Your task to perform on an android device: turn off translation in the chrome app Image 0: 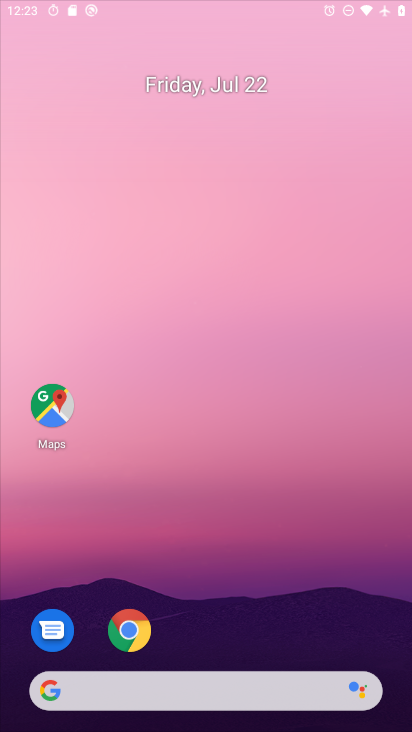
Step 0: press home button
Your task to perform on an android device: turn off translation in the chrome app Image 1: 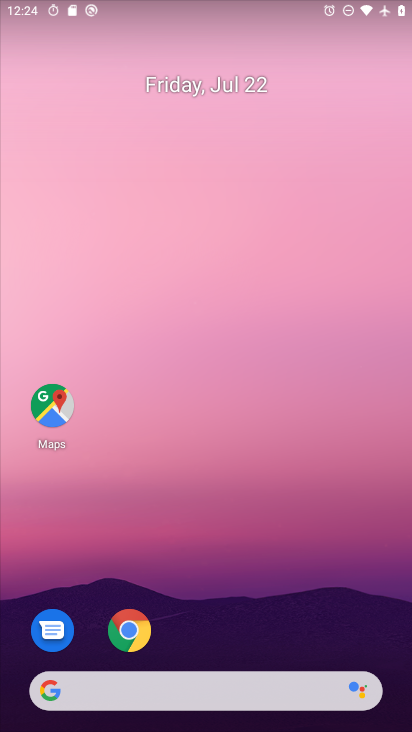
Step 1: drag from (234, 640) to (234, 213)
Your task to perform on an android device: turn off translation in the chrome app Image 2: 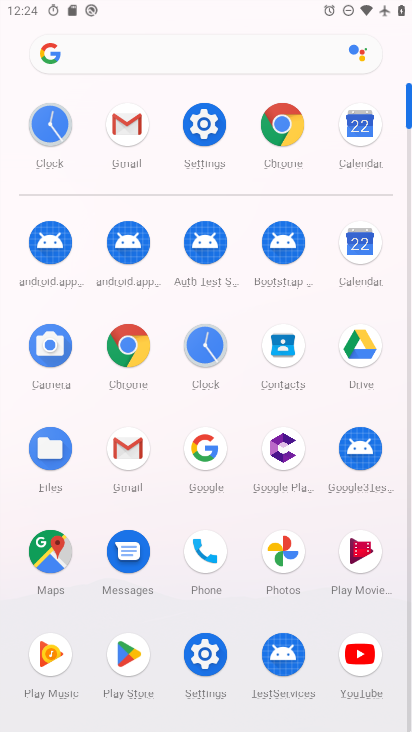
Step 2: click (277, 130)
Your task to perform on an android device: turn off translation in the chrome app Image 3: 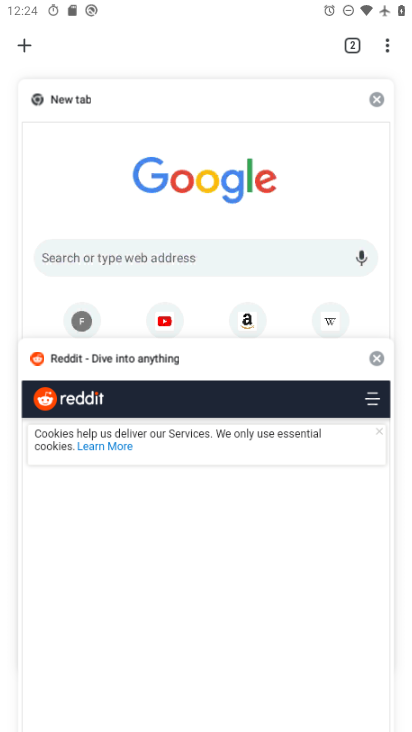
Step 3: drag from (386, 49) to (218, 173)
Your task to perform on an android device: turn off translation in the chrome app Image 4: 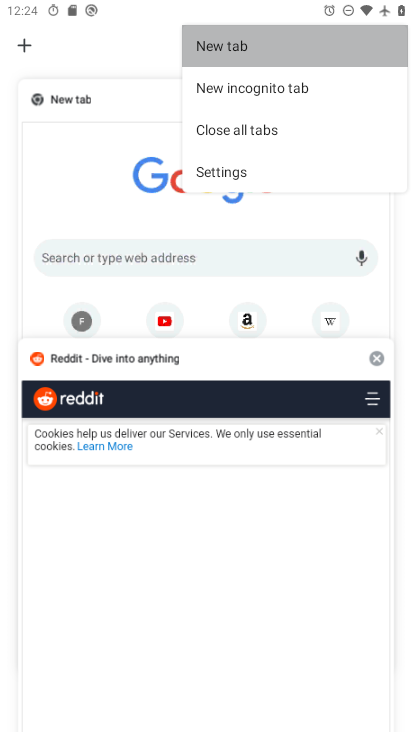
Step 4: drag from (382, 57) to (218, 173)
Your task to perform on an android device: turn off translation in the chrome app Image 5: 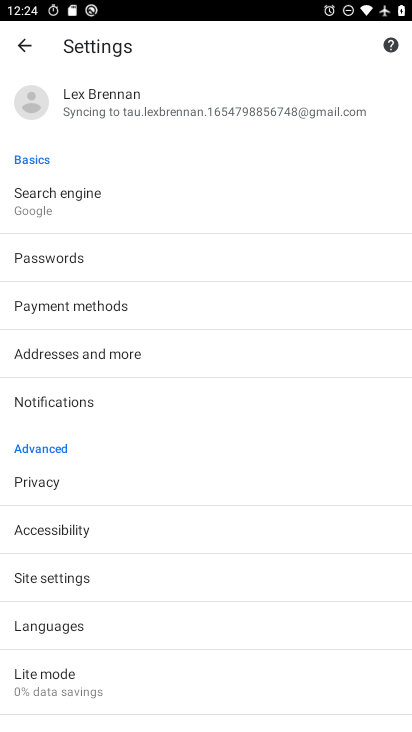
Step 5: click (43, 624)
Your task to perform on an android device: turn off translation in the chrome app Image 6: 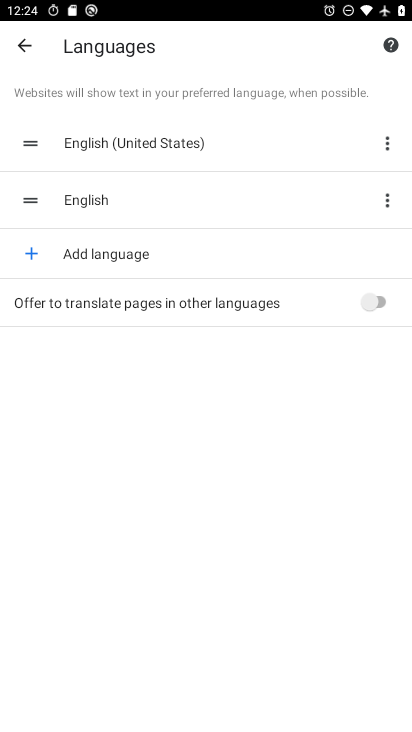
Step 6: task complete